Your task to perform on an android device: Go to Wikipedia Image 0: 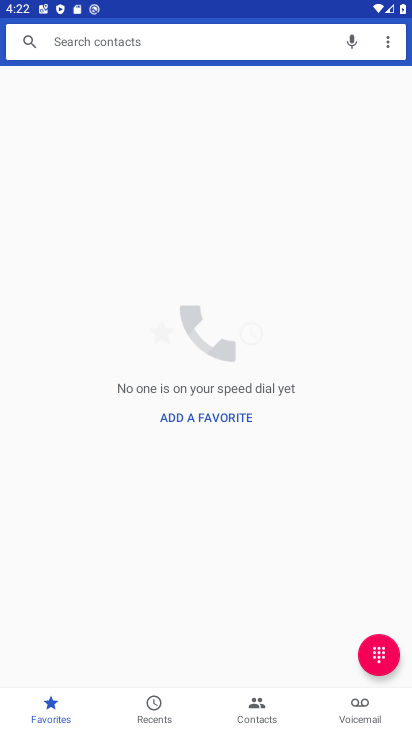
Step 0: press back button
Your task to perform on an android device: Go to Wikipedia Image 1: 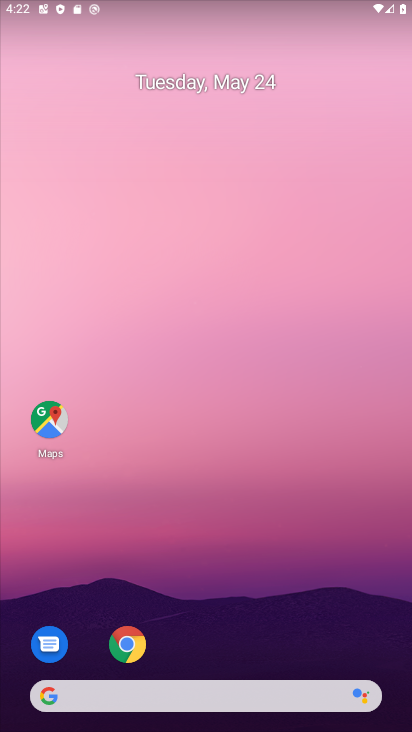
Step 1: drag from (233, 660) to (163, 5)
Your task to perform on an android device: Go to Wikipedia Image 2: 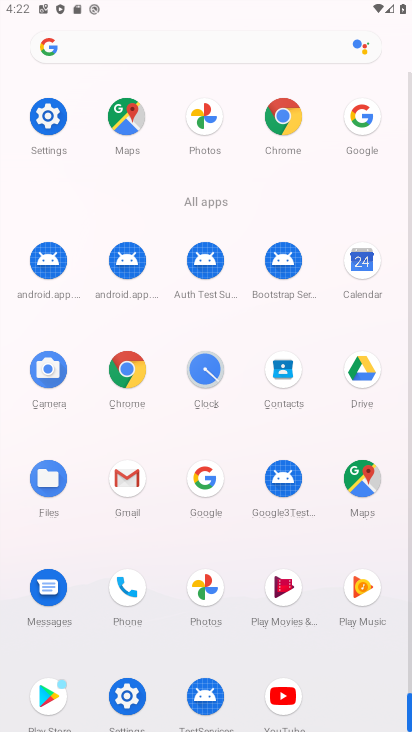
Step 2: click (281, 117)
Your task to perform on an android device: Go to Wikipedia Image 3: 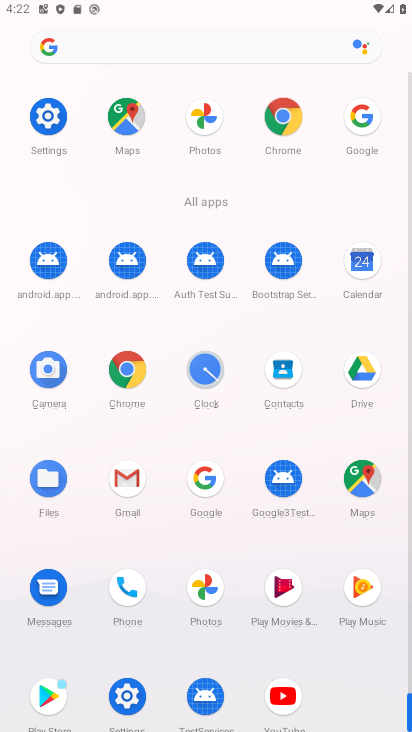
Step 3: click (281, 117)
Your task to perform on an android device: Go to Wikipedia Image 4: 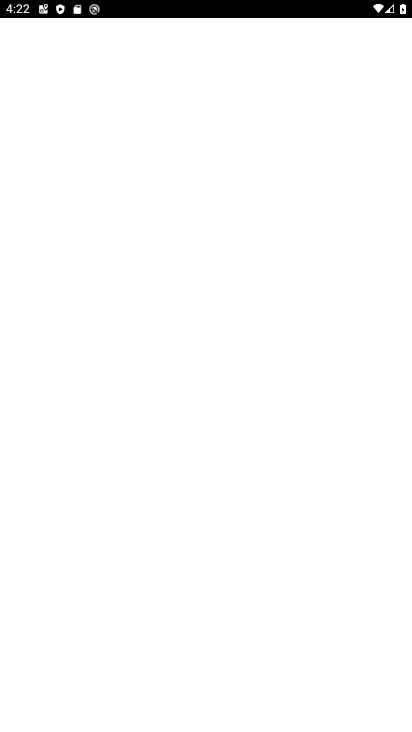
Step 4: click (283, 113)
Your task to perform on an android device: Go to Wikipedia Image 5: 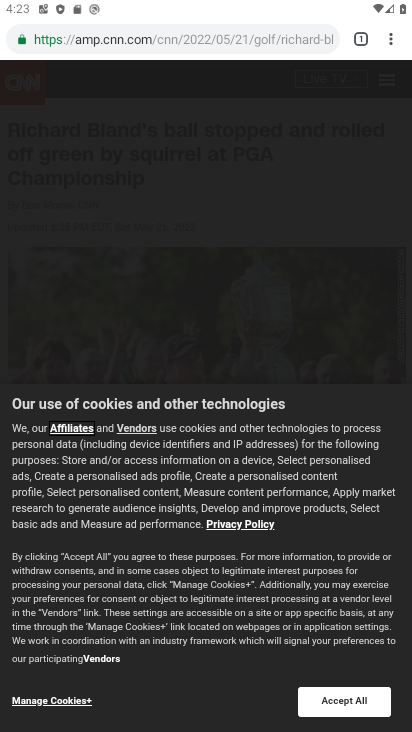
Step 5: click (345, 705)
Your task to perform on an android device: Go to Wikipedia Image 6: 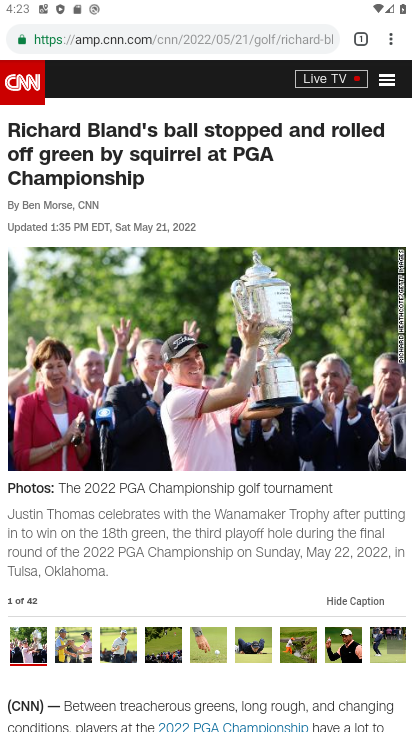
Step 6: click (262, 330)
Your task to perform on an android device: Go to Wikipedia Image 7: 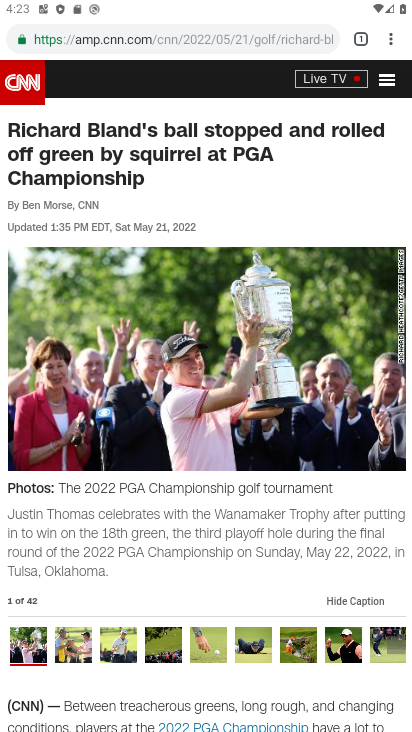
Step 7: press back button
Your task to perform on an android device: Go to Wikipedia Image 8: 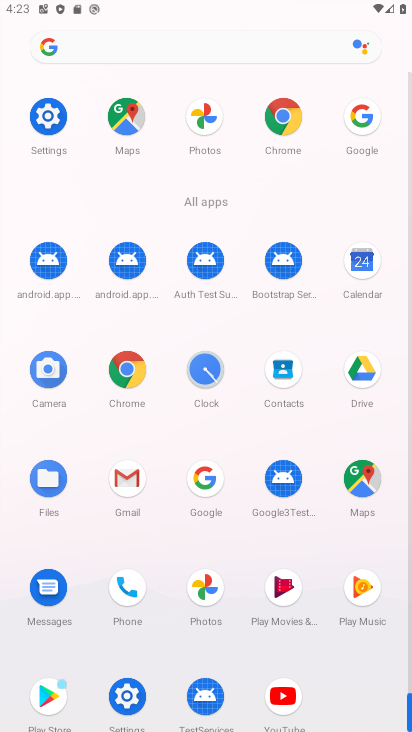
Step 8: click (280, 122)
Your task to perform on an android device: Go to Wikipedia Image 9: 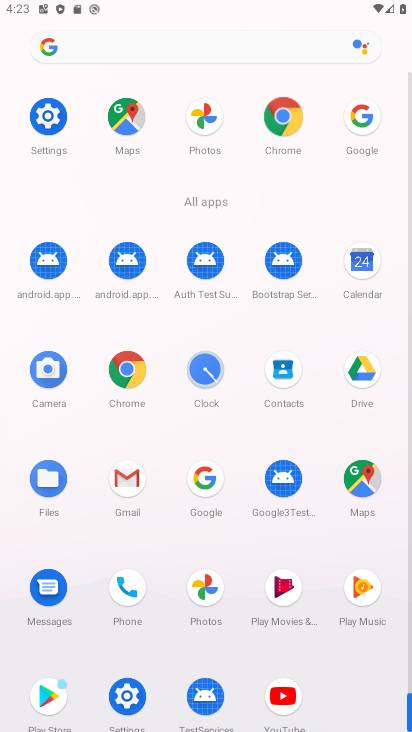
Step 9: click (285, 117)
Your task to perform on an android device: Go to Wikipedia Image 10: 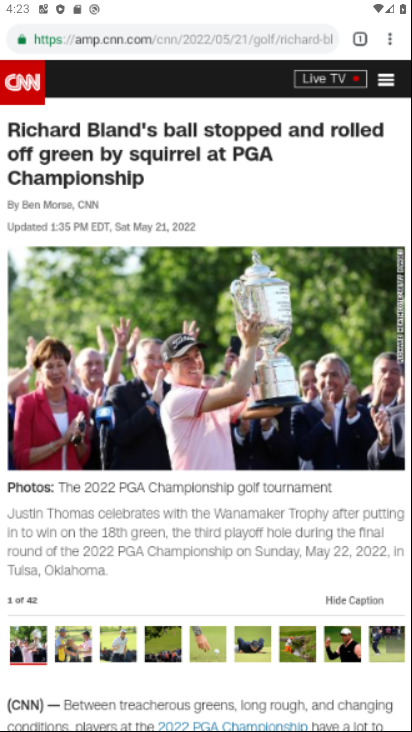
Step 10: click (287, 119)
Your task to perform on an android device: Go to Wikipedia Image 11: 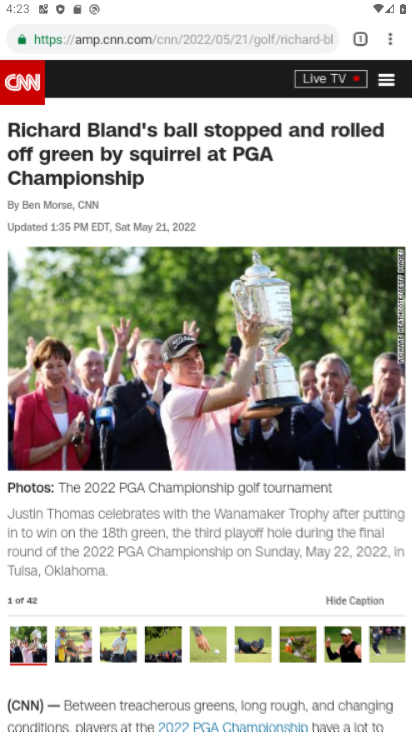
Step 11: drag from (392, 36) to (254, 76)
Your task to perform on an android device: Go to Wikipedia Image 12: 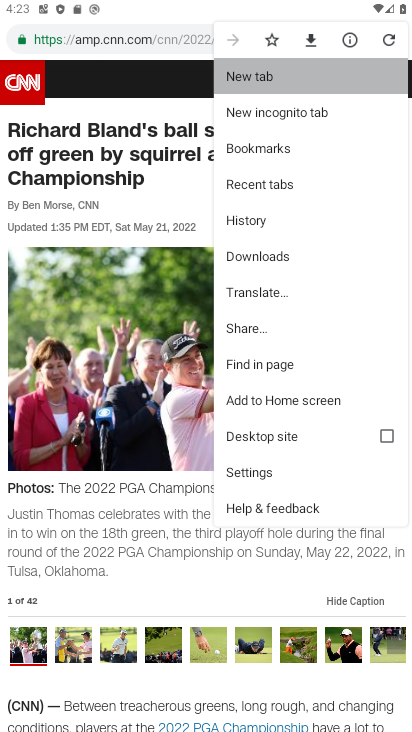
Step 12: click (254, 76)
Your task to perform on an android device: Go to Wikipedia Image 13: 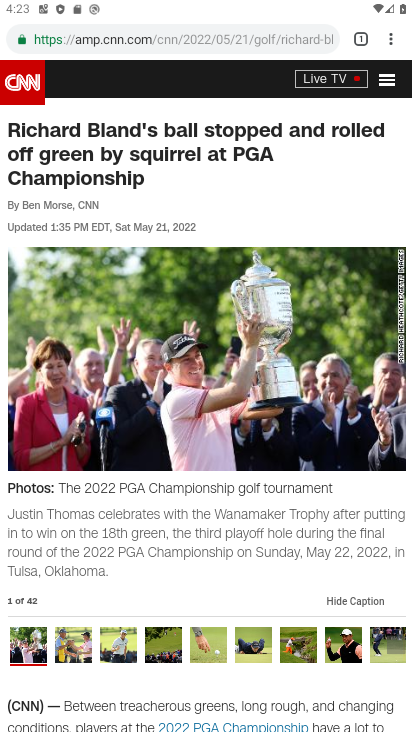
Step 13: click (254, 76)
Your task to perform on an android device: Go to Wikipedia Image 14: 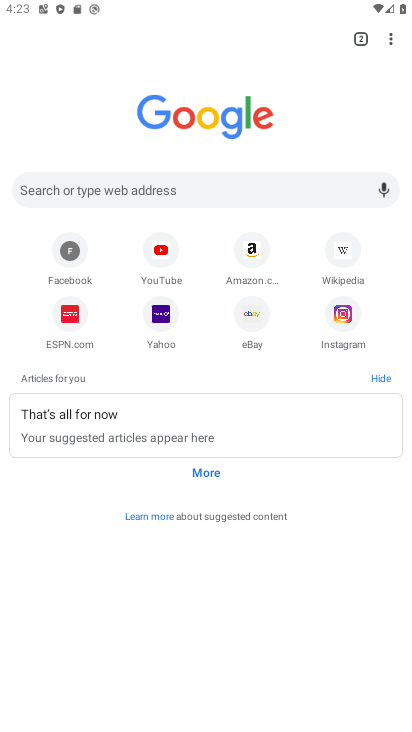
Step 14: click (335, 256)
Your task to perform on an android device: Go to Wikipedia Image 15: 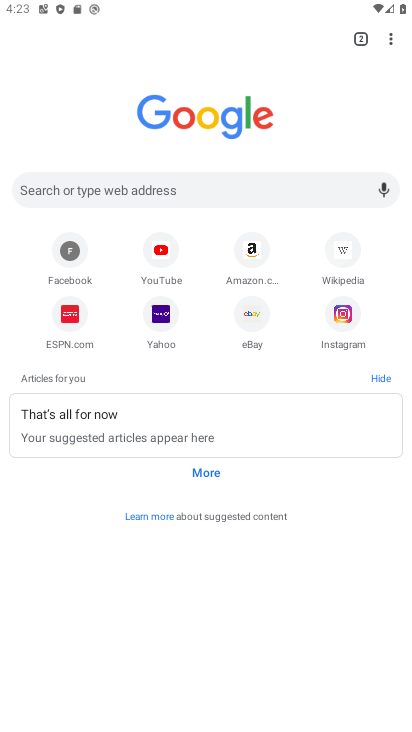
Step 15: click (337, 249)
Your task to perform on an android device: Go to Wikipedia Image 16: 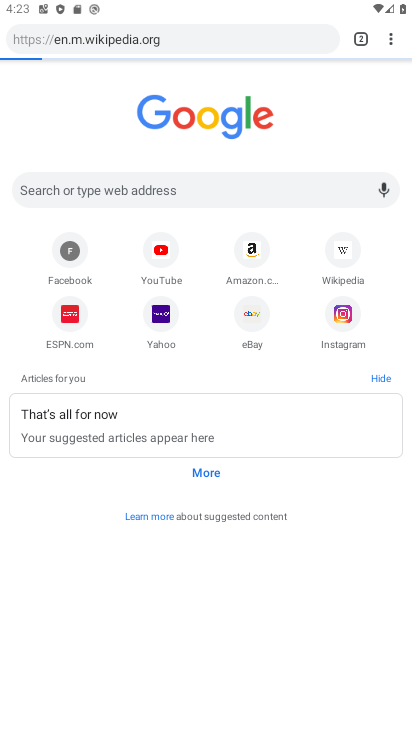
Step 16: click (337, 249)
Your task to perform on an android device: Go to Wikipedia Image 17: 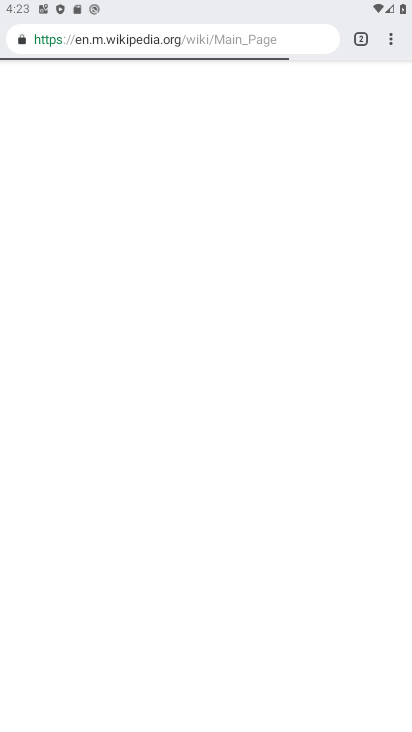
Step 17: click (340, 255)
Your task to perform on an android device: Go to Wikipedia Image 18: 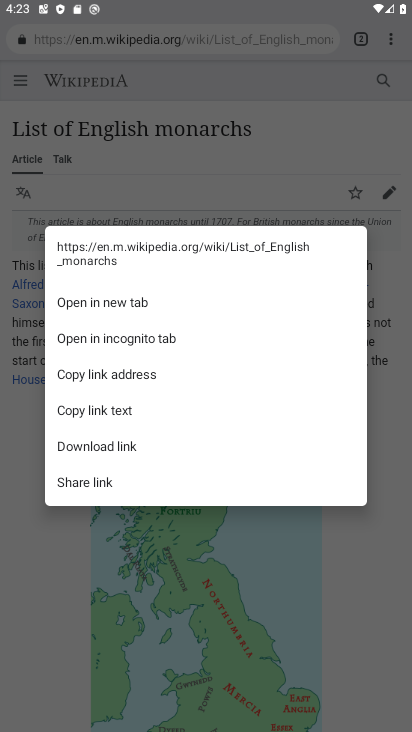
Step 18: task complete